Your task to perform on an android device: open app "Duolingo: language lessons" (install if not already installed) Image 0: 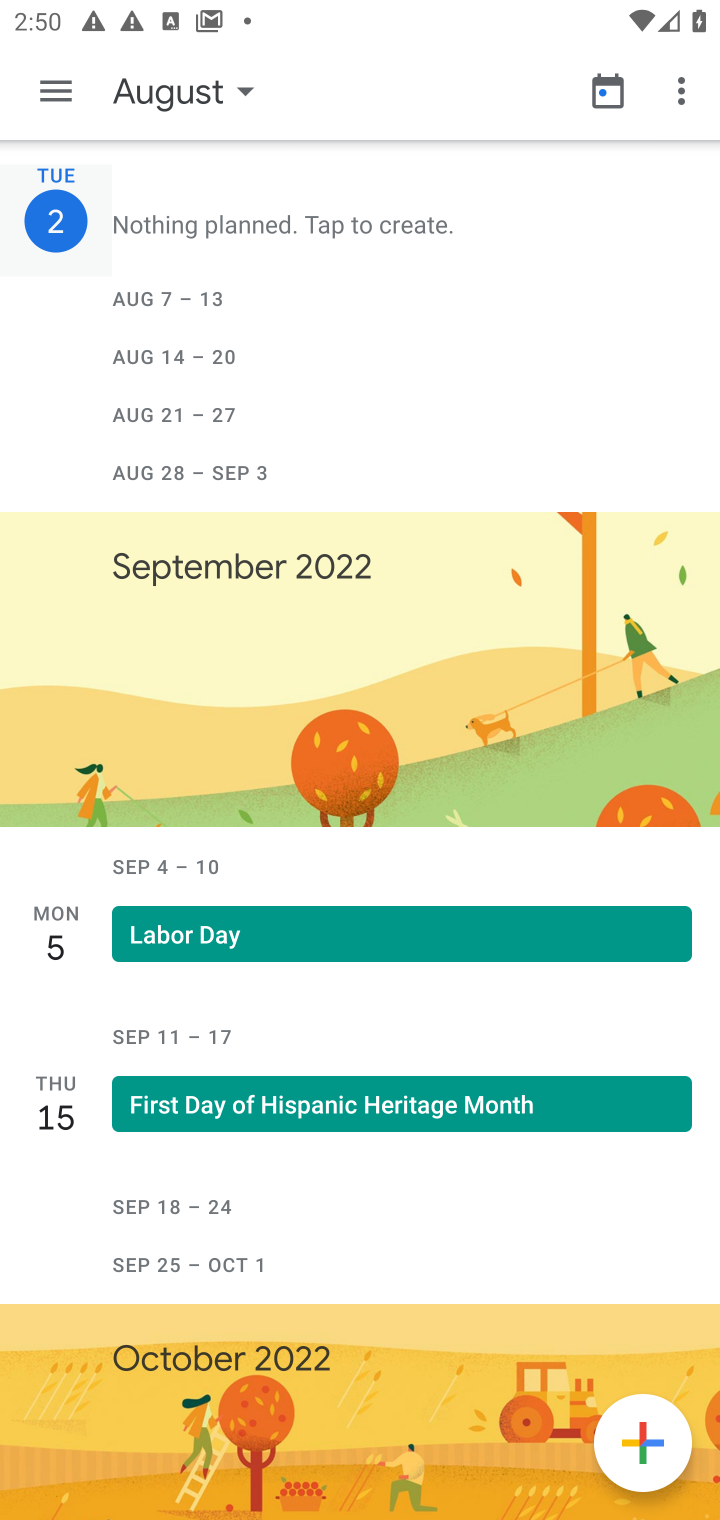
Step 0: press home button
Your task to perform on an android device: open app "Duolingo: language lessons" (install if not already installed) Image 1: 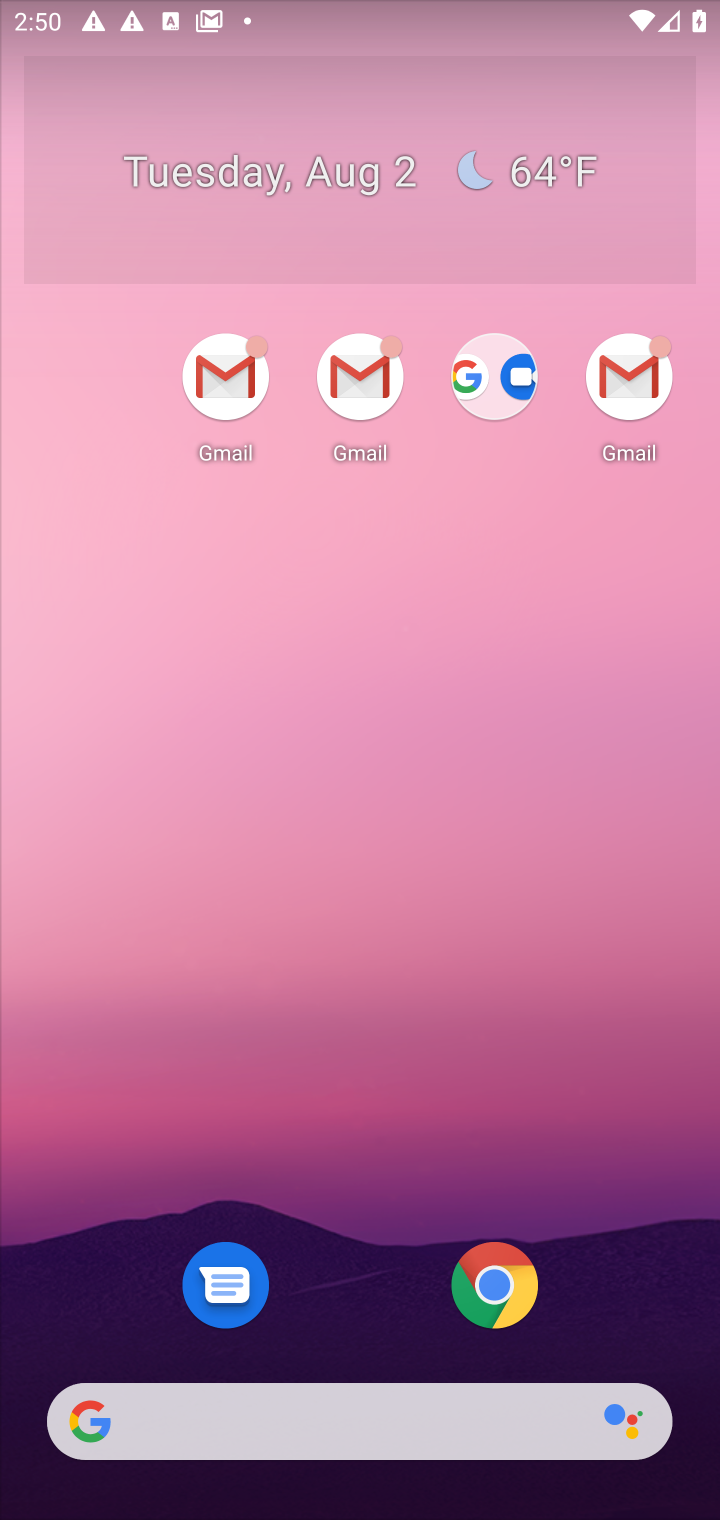
Step 1: drag from (317, 1292) to (433, 251)
Your task to perform on an android device: open app "Duolingo: language lessons" (install if not already installed) Image 2: 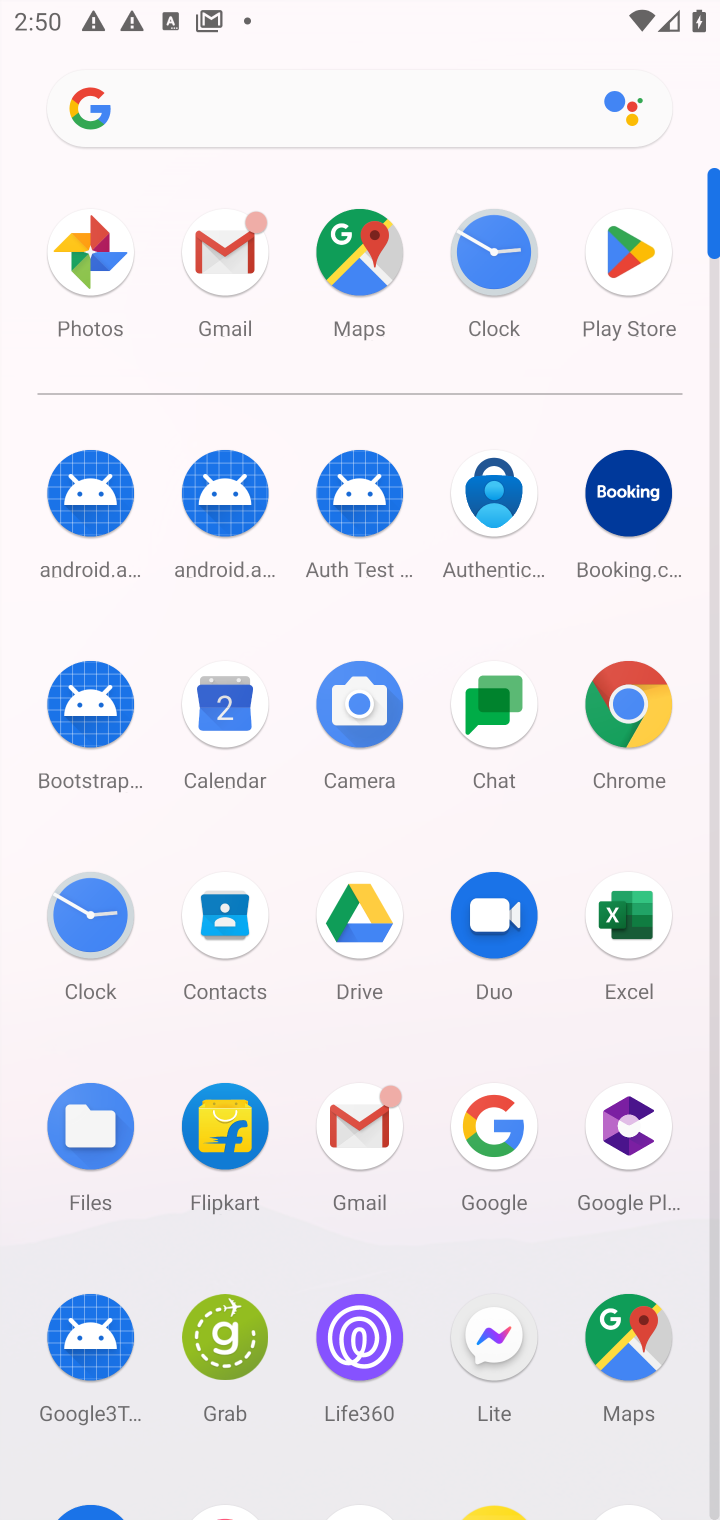
Step 2: drag from (540, 1251) to (538, 626)
Your task to perform on an android device: open app "Duolingo: language lessons" (install if not already installed) Image 3: 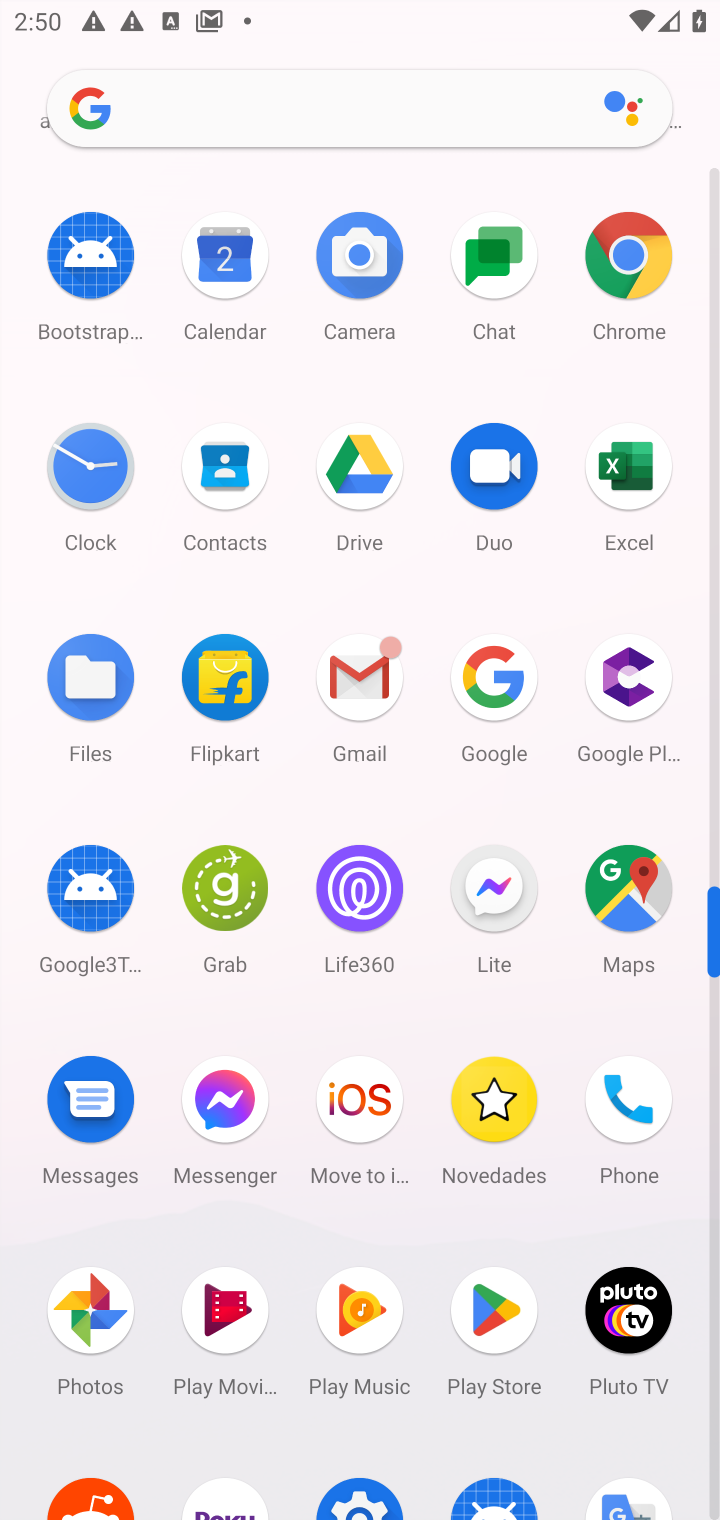
Step 3: click (497, 1300)
Your task to perform on an android device: open app "Duolingo: language lessons" (install if not already installed) Image 4: 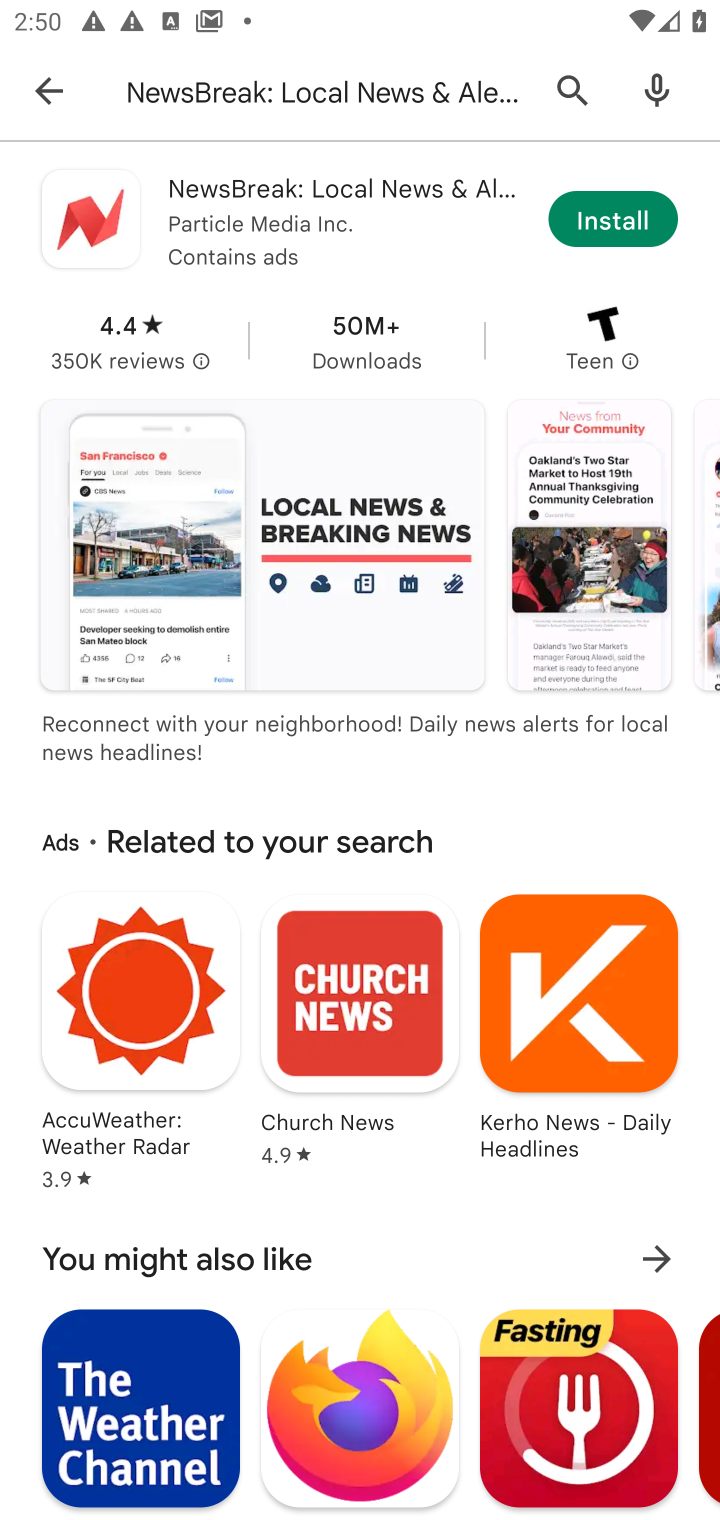
Step 4: click (415, 64)
Your task to perform on an android device: open app "Duolingo: language lessons" (install if not already installed) Image 5: 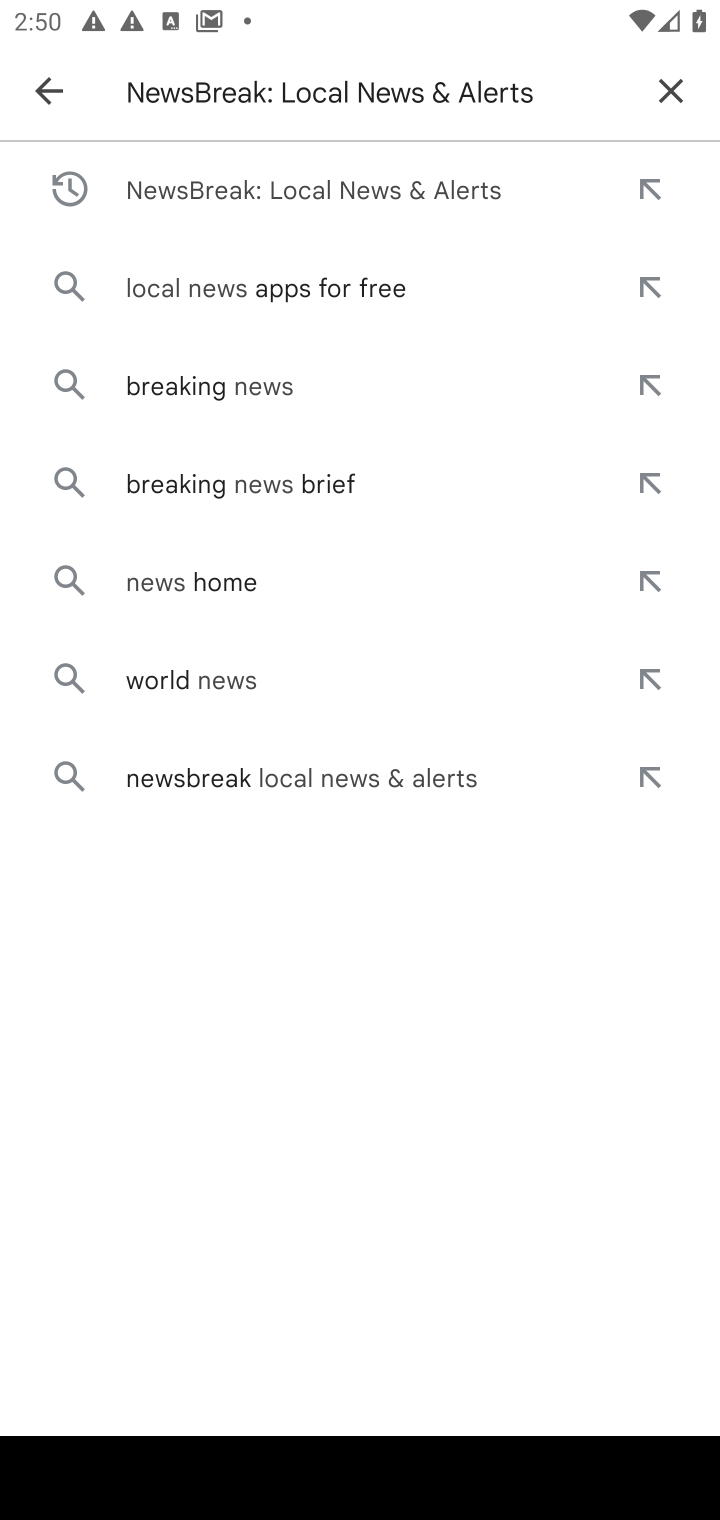
Step 5: click (676, 91)
Your task to perform on an android device: open app "Duolingo: language lessons" (install if not already installed) Image 6: 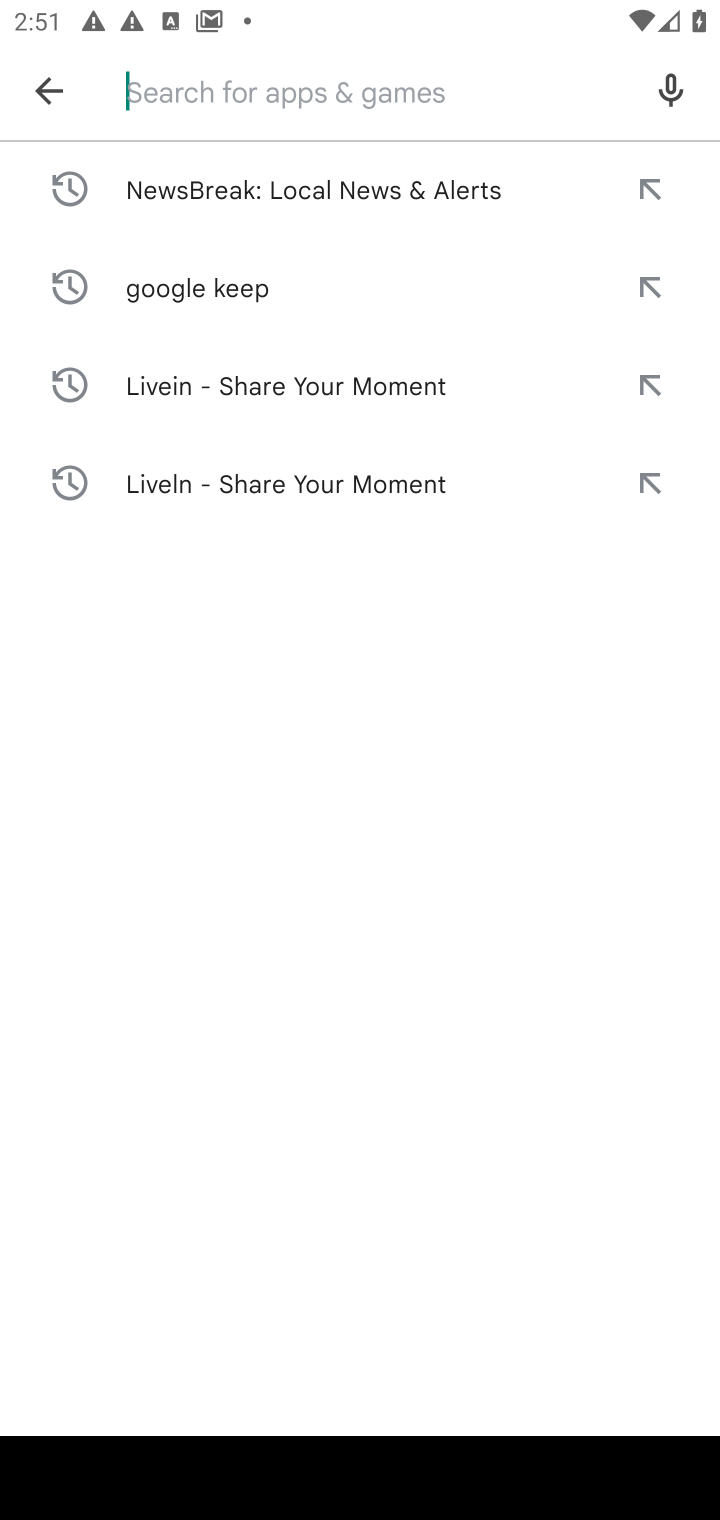
Step 6: type "Duolingo: language lessons"
Your task to perform on an android device: open app "Duolingo: language lessons" (install if not already installed) Image 7: 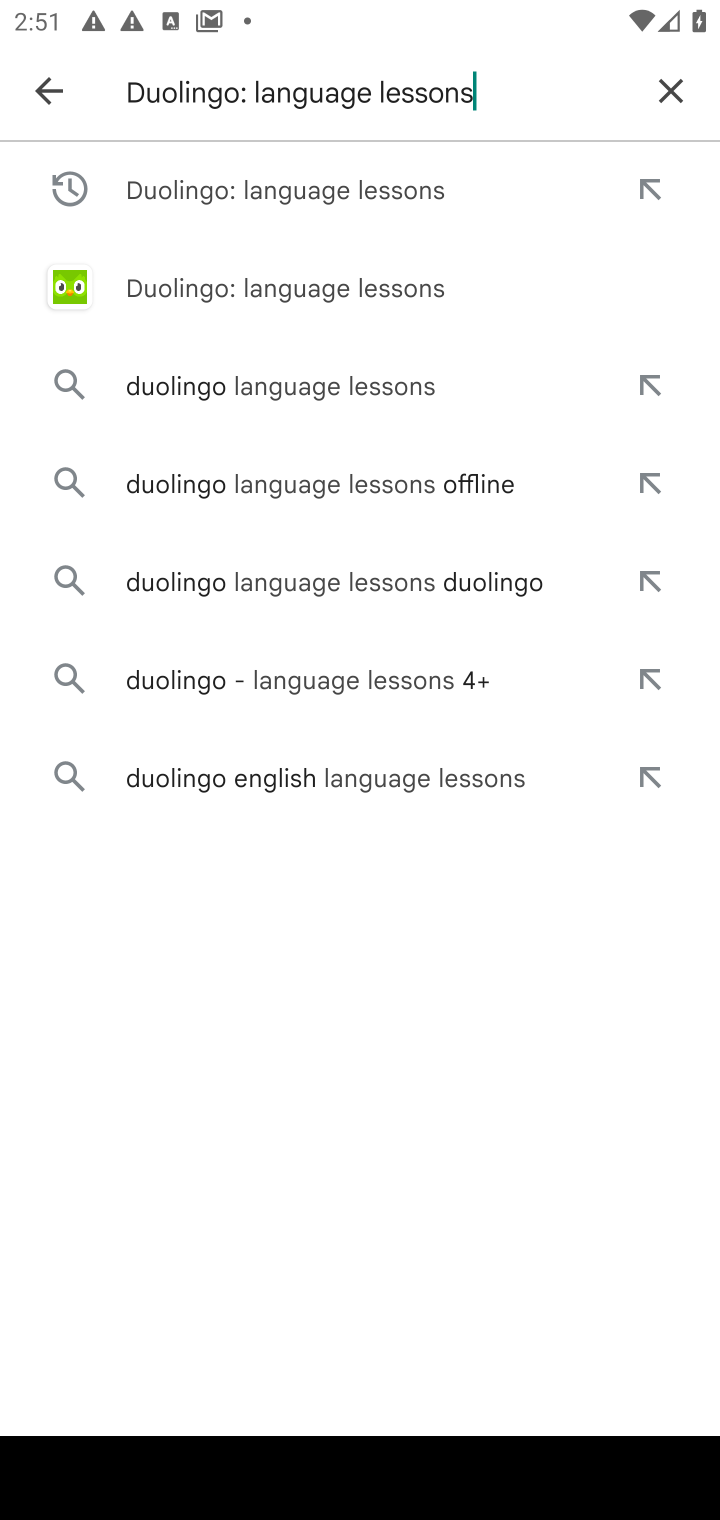
Step 7: click (296, 273)
Your task to perform on an android device: open app "Duolingo: language lessons" (install if not already installed) Image 8: 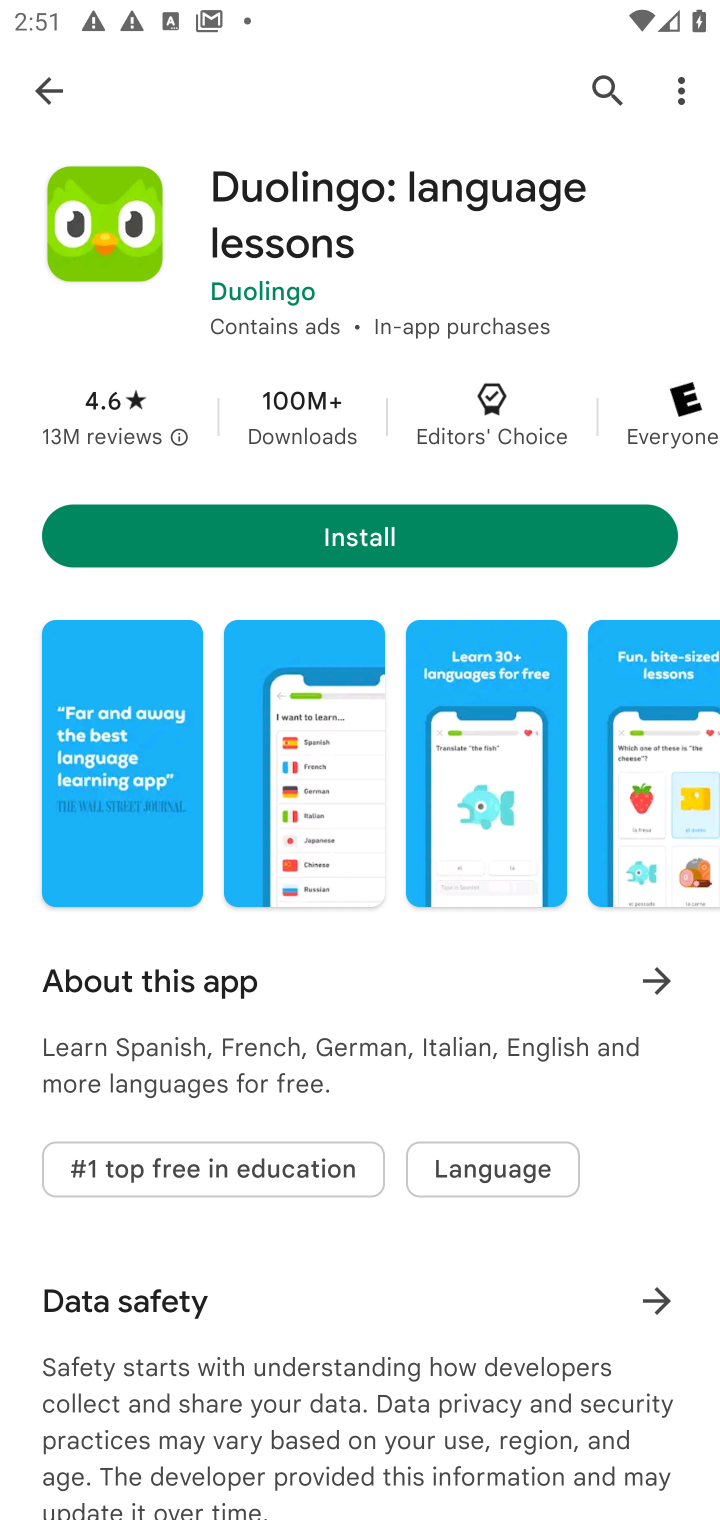
Step 8: click (338, 524)
Your task to perform on an android device: open app "Duolingo: language lessons" (install if not already installed) Image 9: 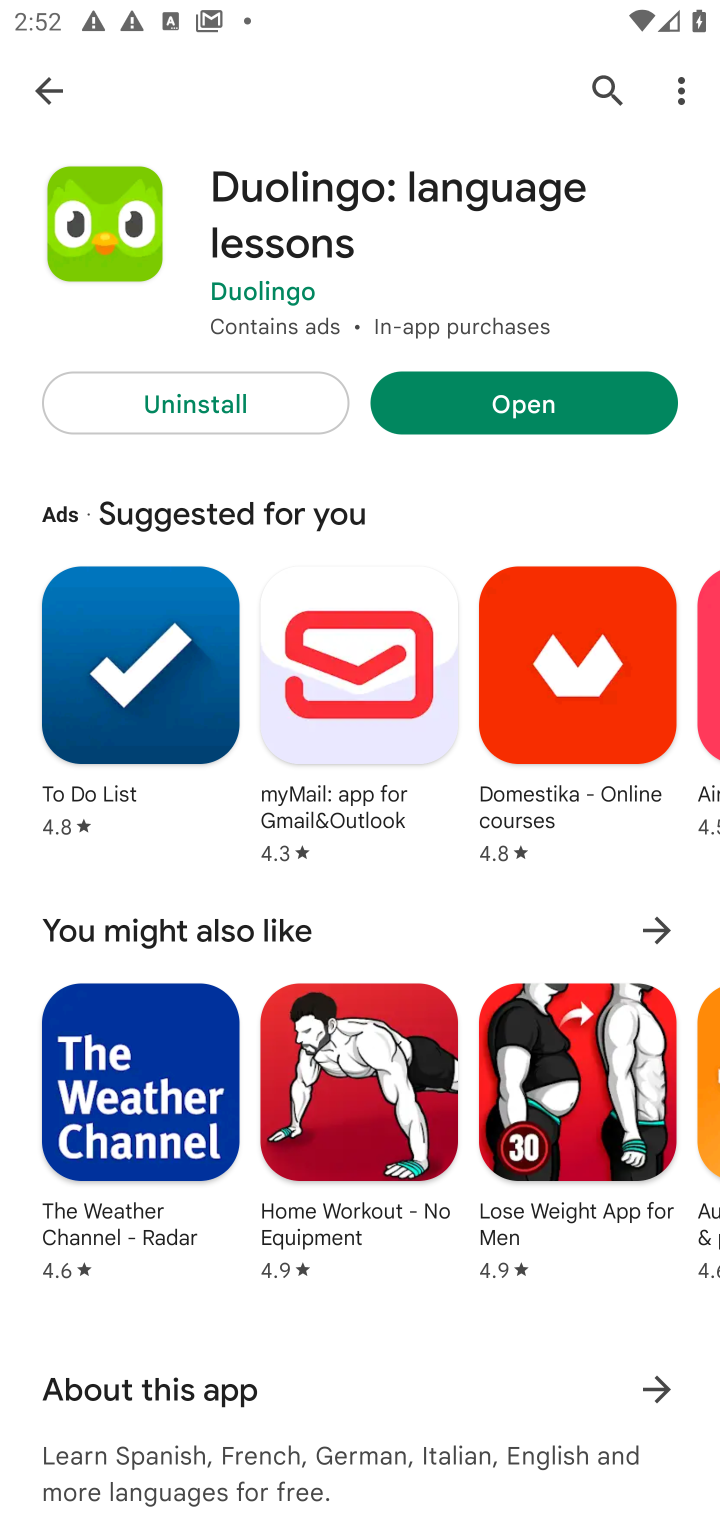
Step 9: task complete